Your task to perform on an android device: Open wifi settings Image 0: 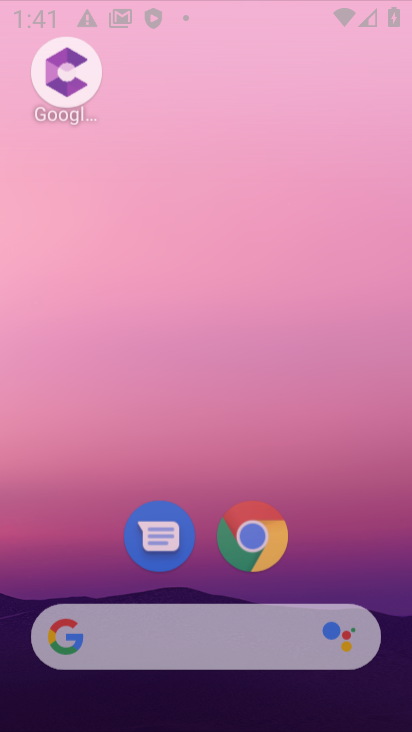
Step 0: press home button
Your task to perform on an android device: Open wifi settings Image 1: 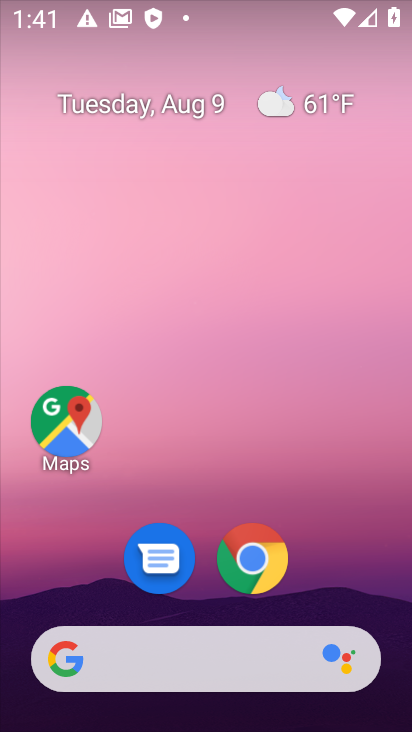
Step 1: drag from (198, 594) to (195, 81)
Your task to perform on an android device: Open wifi settings Image 2: 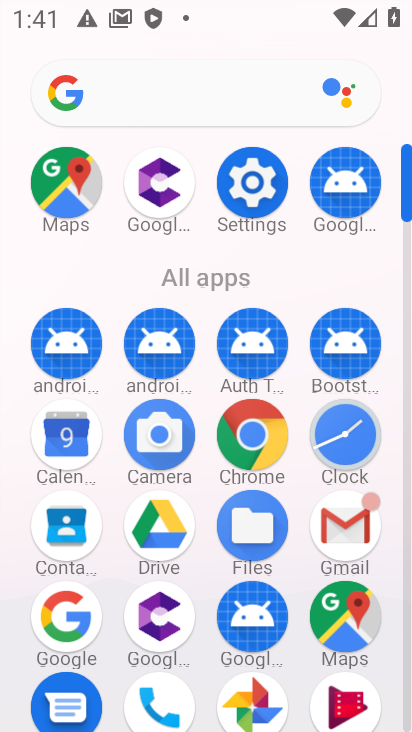
Step 2: click (252, 192)
Your task to perform on an android device: Open wifi settings Image 3: 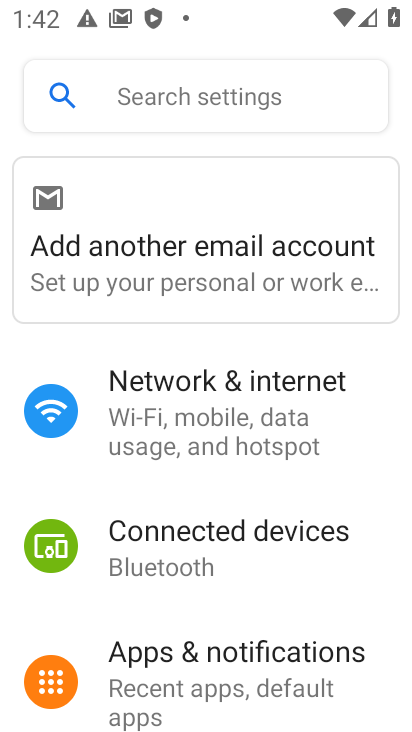
Step 3: drag from (181, 594) to (181, 232)
Your task to perform on an android device: Open wifi settings Image 4: 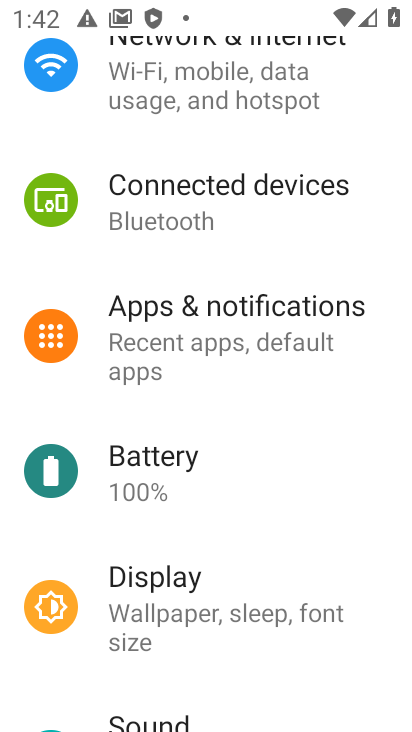
Step 4: click (131, 74)
Your task to perform on an android device: Open wifi settings Image 5: 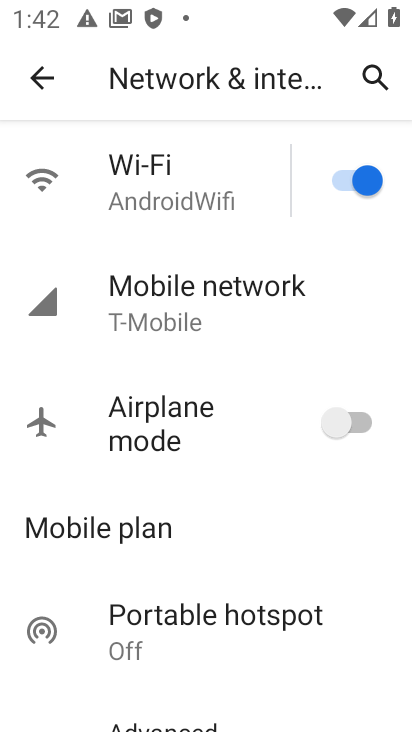
Step 5: click (162, 203)
Your task to perform on an android device: Open wifi settings Image 6: 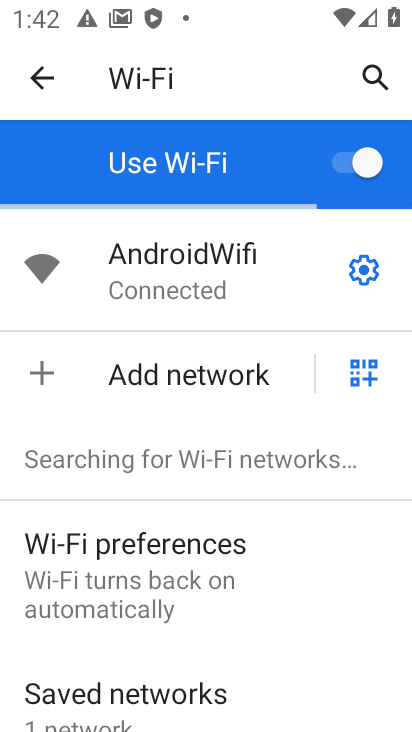
Step 6: task complete